Your task to perform on an android device: Open Google Chrome and open the bookmarks view Image 0: 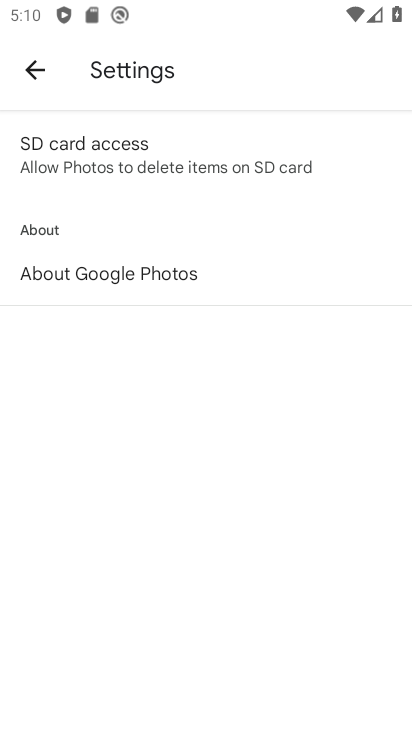
Step 0: press back button
Your task to perform on an android device: Open Google Chrome and open the bookmarks view Image 1: 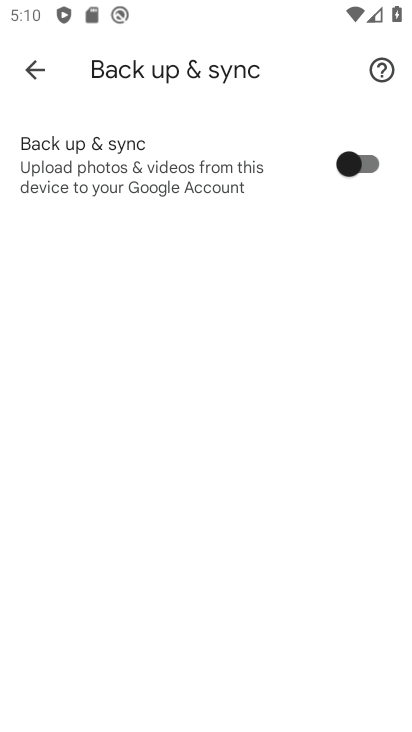
Step 1: press back button
Your task to perform on an android device: Open Google Chrome and open the bookmarks view Image 2: 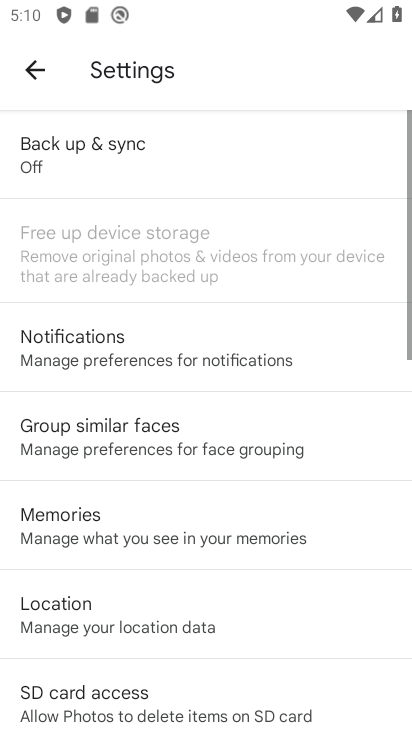
Step 2: press home button
Your task to perform on an android device: Open Google Chrome and open the bookmarks view Image 3: 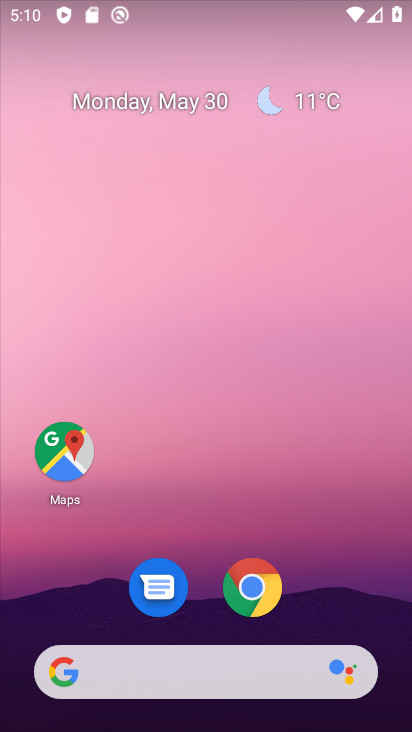
Step 3: drag from (303, 588) to (252, 4)
Your task to perform on an android device: Open Google Chrome and open the bookmarks view Image 4: 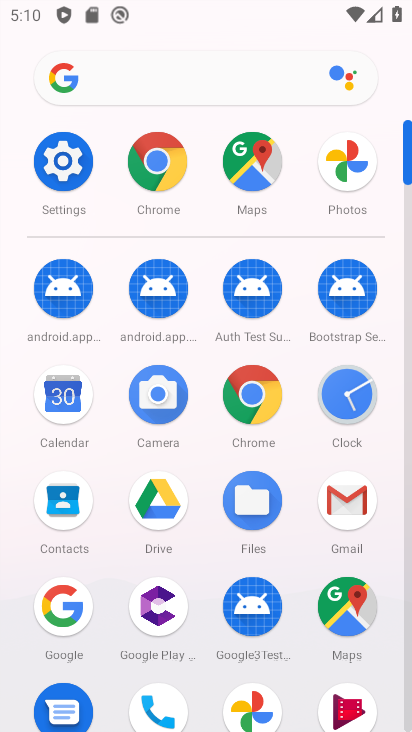
Step 4: click (253, 393)
Your task to perform on an android device: Open Google Chrome and open the bookmarks view Image 5: 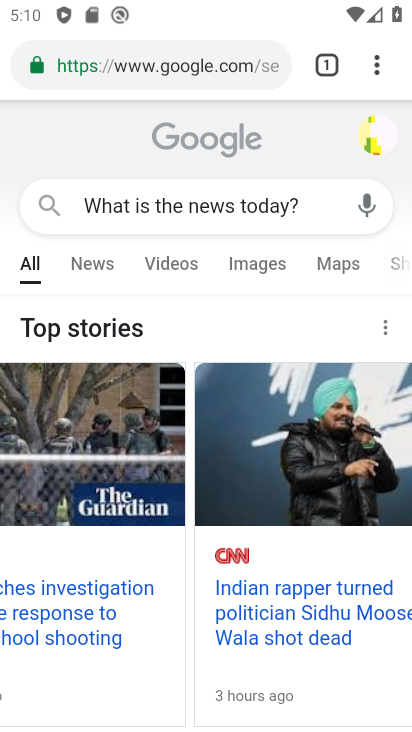
Step 5: task complete